Your task to perform on an android device: clear all cookies in the chrome app Image 0: 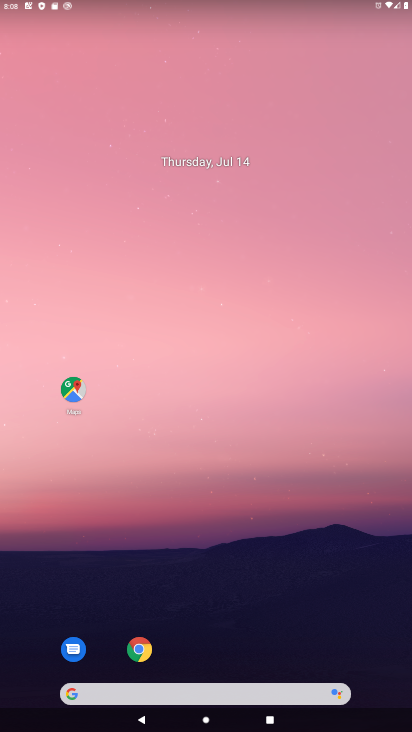
Step 0: press home button
Your task to perform on an android device: clear all cookies in the chrome app Image 1: 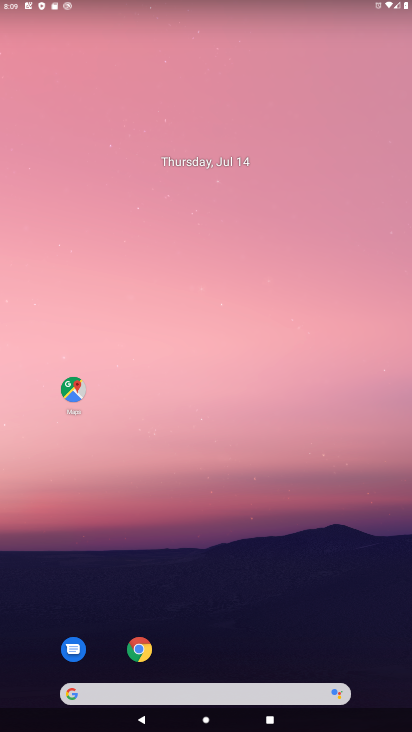
Step 1: click (141, 647)
Your task to perform on an android device: clear all cookies in the chrome app Image 2: 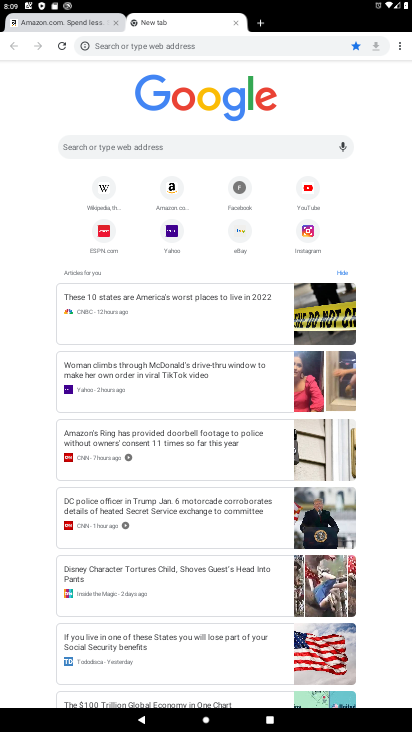
Step 2: click (400, 45)
Your task to perform on an android device: clear all cookies in the chrome app Image 3: 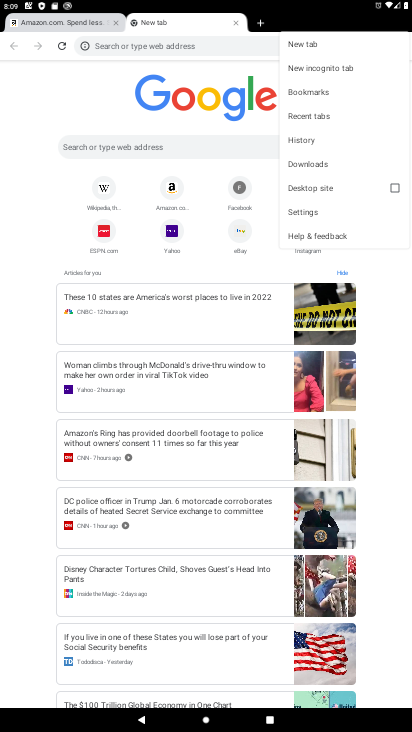
Step 3: click (321, 134)
Your task to perform on an android device: clear all cookies in the chrome app Image 4: 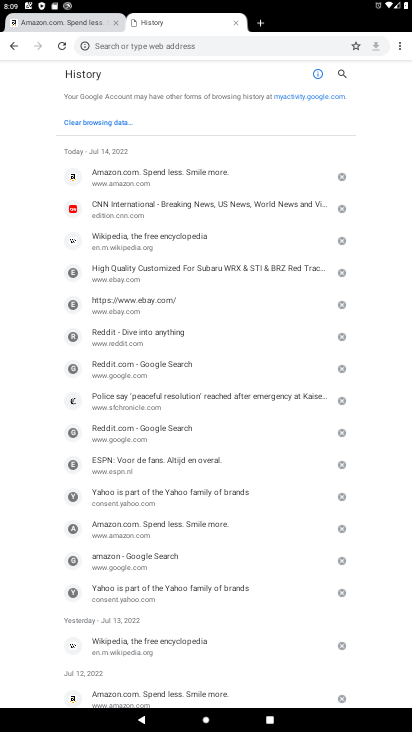
Step 4: click (93, 120)
Your task to perform on an android device: clear all cookies in the chrome app Image 5: 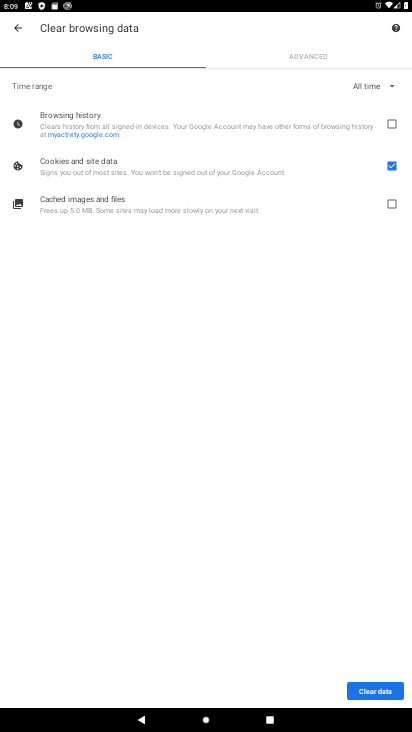
Step 5: click (390, 124)
Your task to perform on an android device: clear all cookies in the chrome app Image 6: 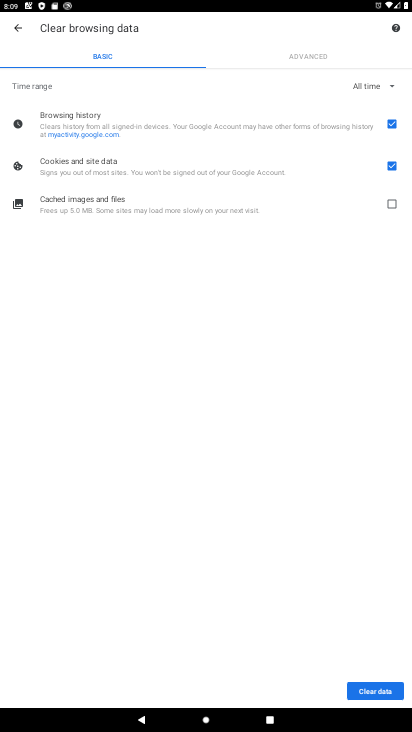
Step 6: click (393, 123)
Your task to perform on an android device: clear all cookies in the chrome app Image 7: 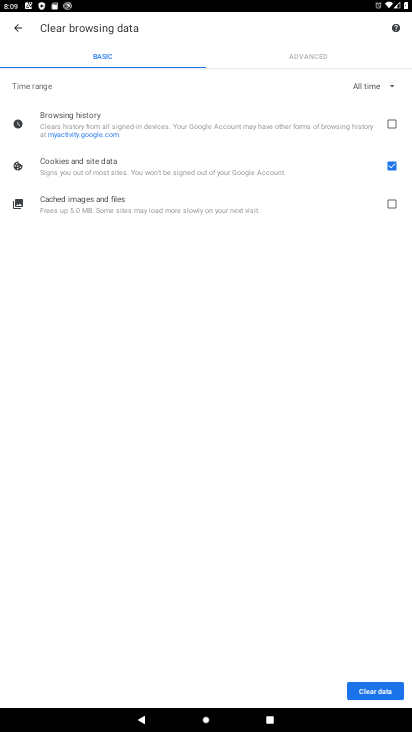
Step 7: click (373, 690)
Your task to perform on an android device: clear all cookies in the chrome app Image 8: 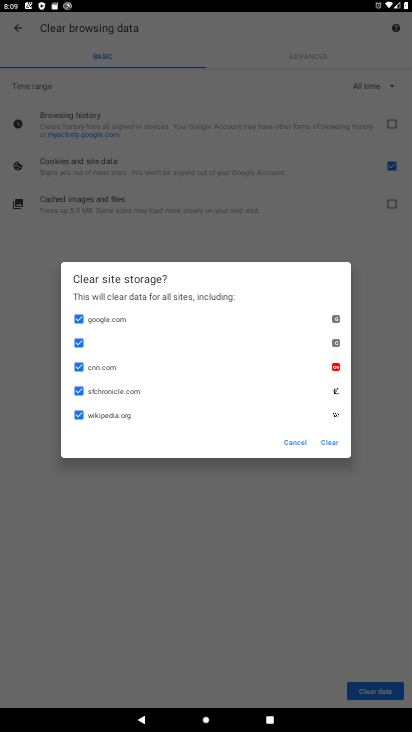
Step 8: click (328, 435)
Your task to perform on an android device: clear all cookies in the chrome app Image 9: 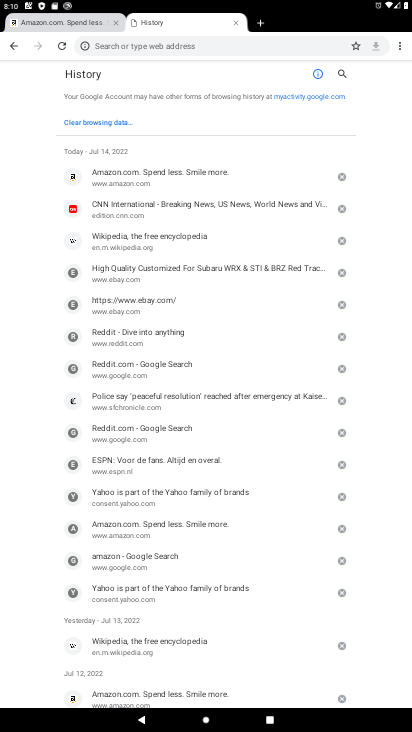
Step 9: task complete